Your task to perform on an android device: Show me productivity apps on the Play Store Image 0: 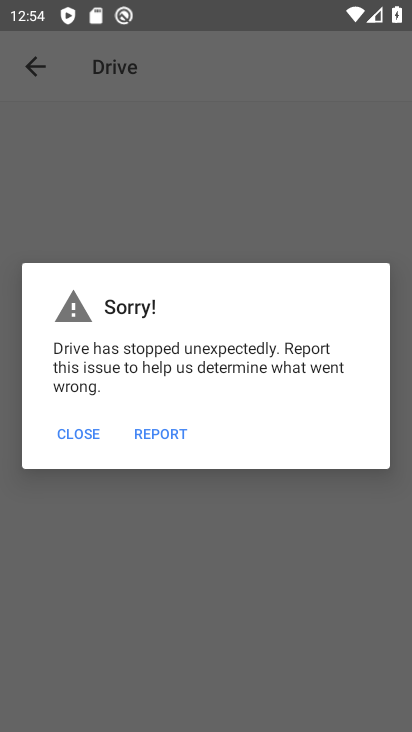
Step 0: press home button
Your task to perform on an android device: Show me productivity apps on the Play Store Image 1: 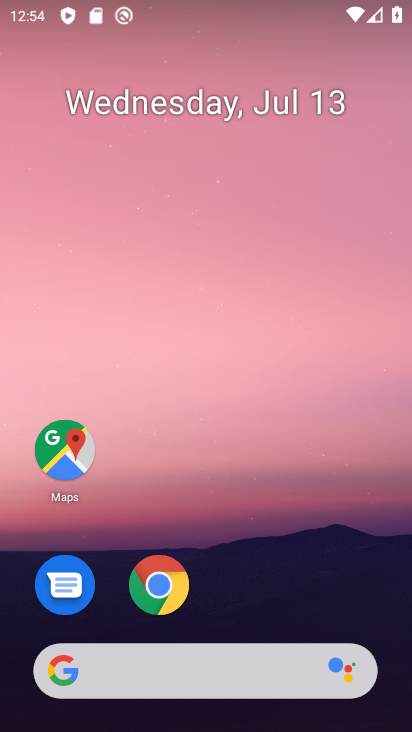
Step 1: drag from (137, 672) to (316, 66)
Your task to perform on an android device: Show me productivity apps on the Play Store Image 2: 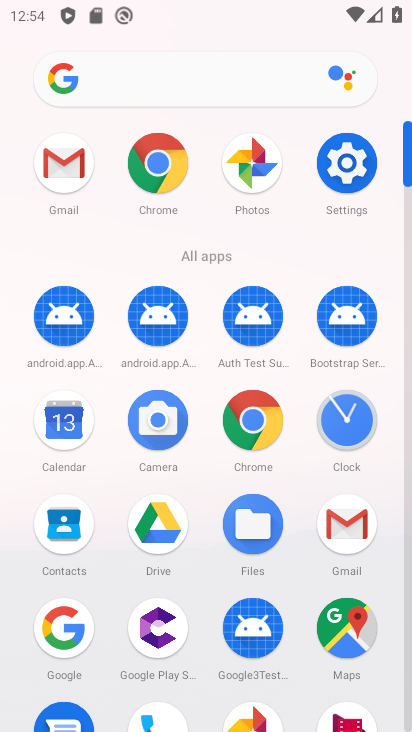
Step 2: drag from (224, 646) to (301, 218)
Your task to perform on an android device: Show me productivity apps on the Play Store Image 3: 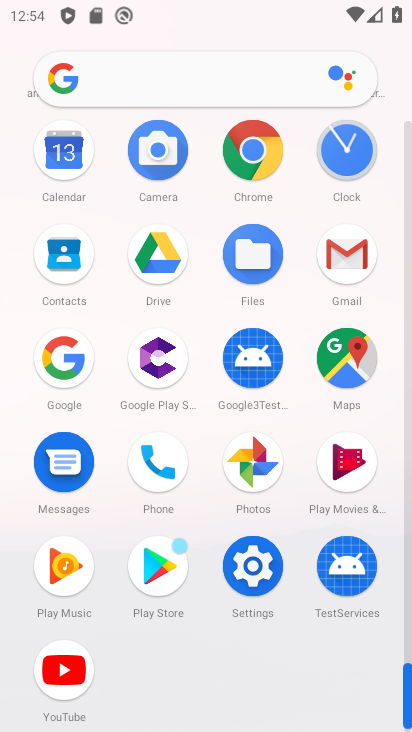
Step 3: click (156, 547)
Your task to perform on an android device: Show me productivity apps on the Play Store Image 4: 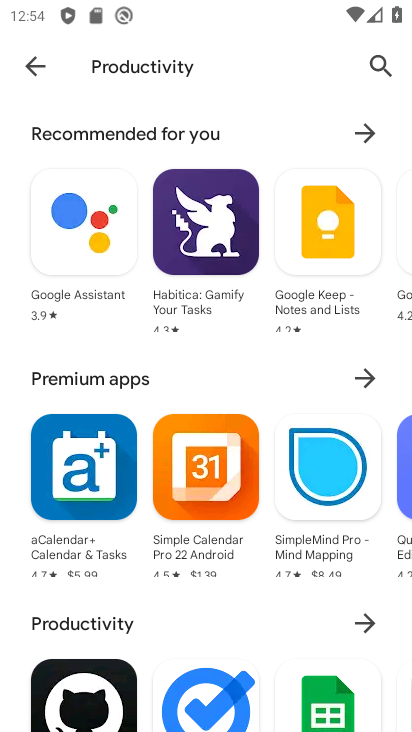
Step 4: task complete